Your task to perform on an android device: clear history in the chrome app Image 0: 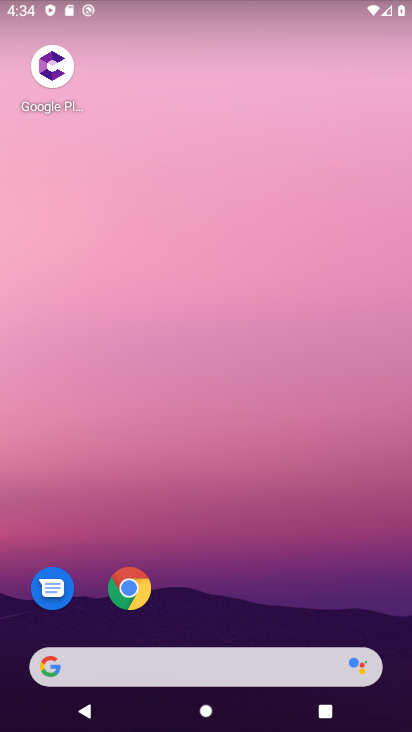
Step 0: click (116, 599)
Your task to perform on an android device: clear history in the chrome app Image 1: 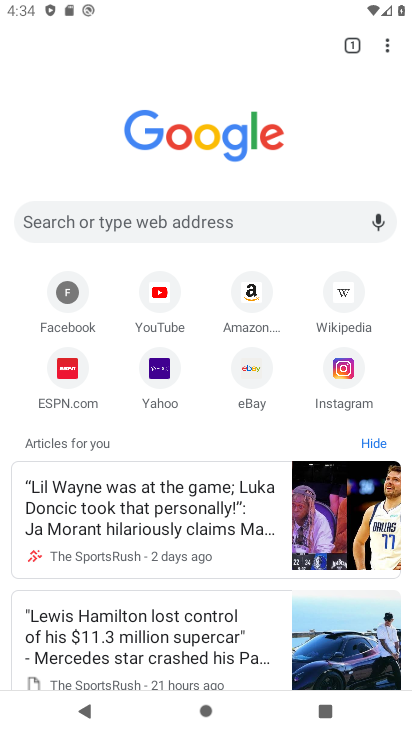
Step 1: task complete